Your task to perform on an android device: turn on translation in the chrome app Image 0: 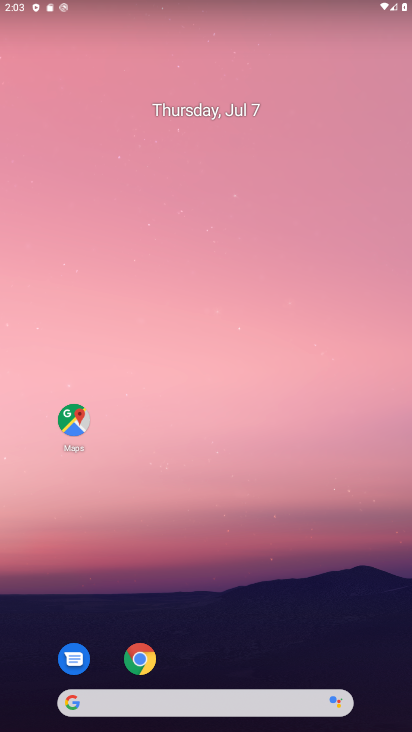
Step 0: click (140, 660)
Your task to perform on an android device: turn on translation in the chrome app Image 1: 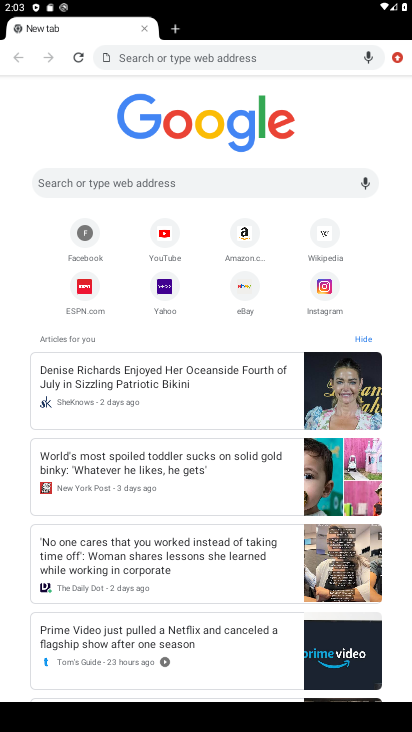
Step 1: click (398, 55)
Your task to perform on an android device: turn on translation in the chrome app Image 2: 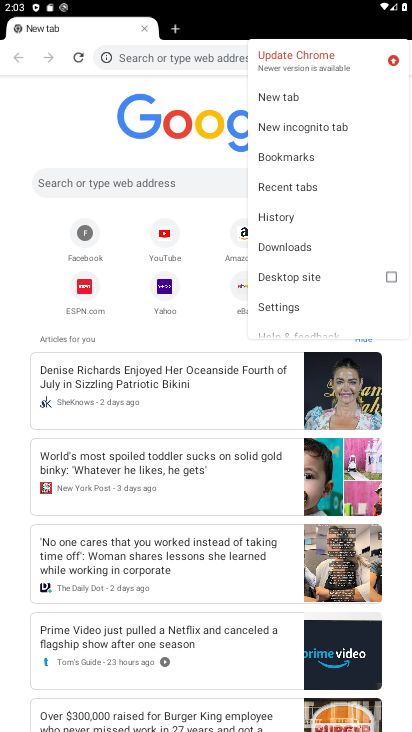
Step 2: click (279, 310)
Your task to perform on an android device: turn on translation in the chrome app Image 3: 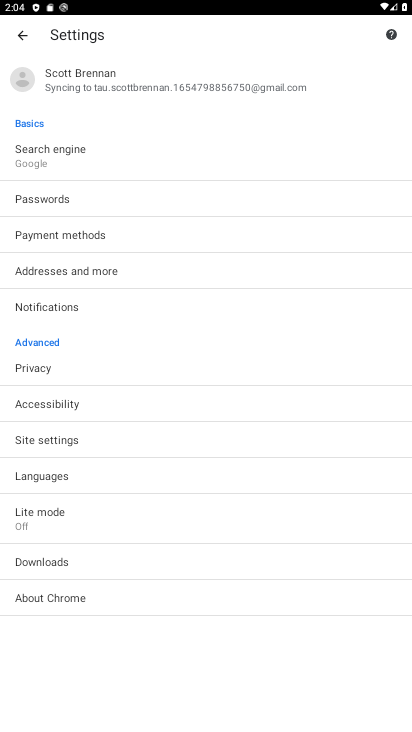
Step 3: click (44, 480)
Your task to perform on an android device: turn on translation in the chrome app Image 4: 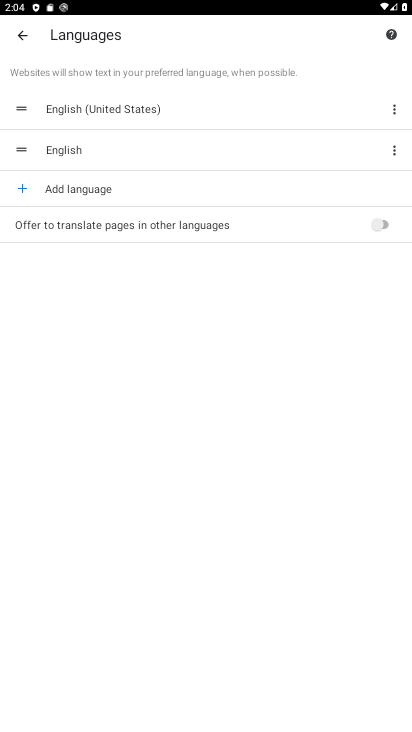
Step 4: click (378, 228)
Your task to perform on an android device: turn on translation in the chrome app Image 5: 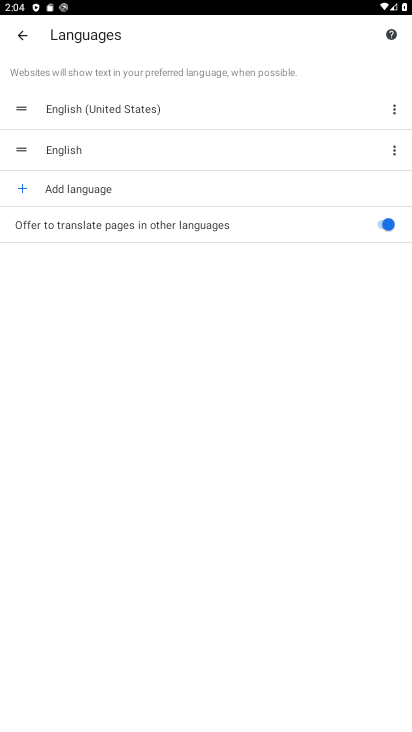
Step 5: task complete